Your task to perform on an android device: delete the emails in spam in the gmail app Image 0: 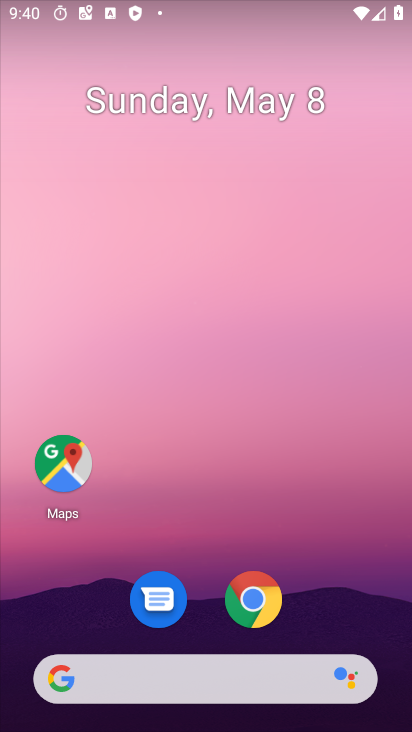
Step 0: drag from (272, 592) to (272, 81)
Your task to perform on an android device: delete the emails in spam in the gmail app Image 1: 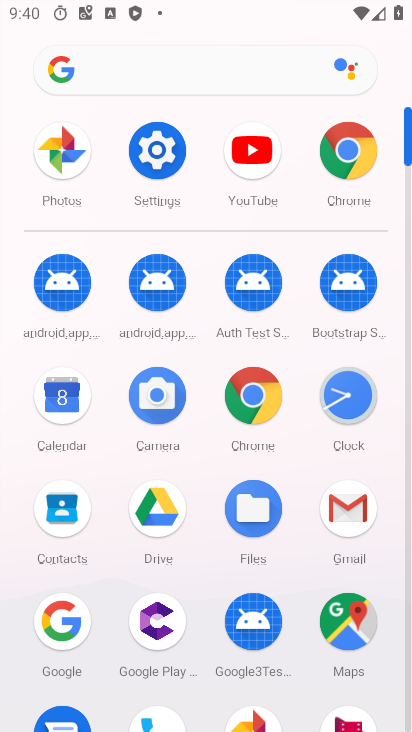
Step 1: click (330, 518)
Your task to perform on an android device: delete the emails in spam in the gmail app Image 2: 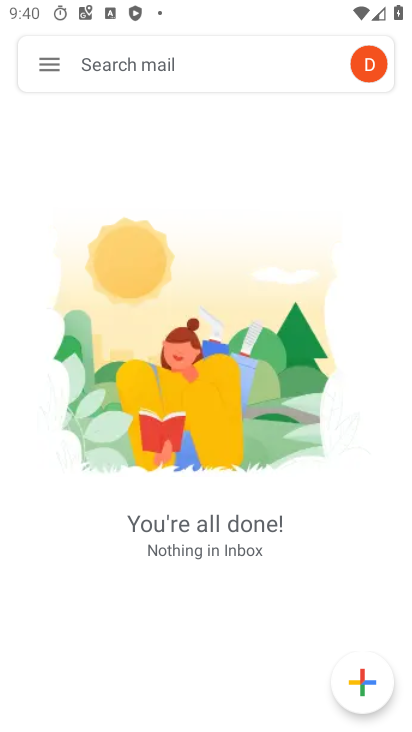
Step 2: click (49, 76)
Your task to perform on an android device: delete the emails in spam in the gmail app Image 3: 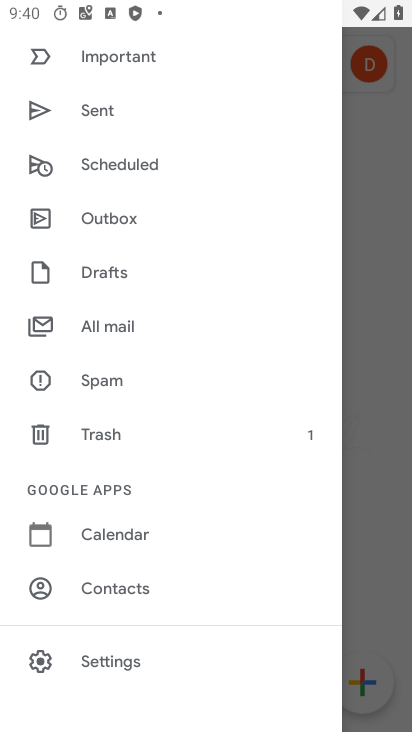
Step 3: click (120, 382)
Your task to perform on an android device: delete the emails in spam in the gmail app Image 4: 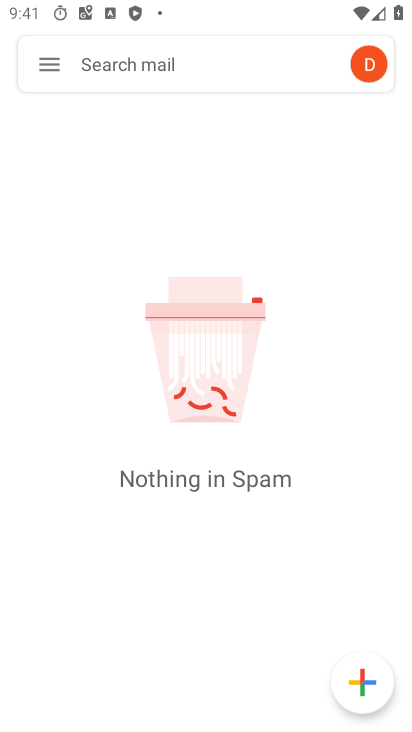
Step 4: task complete